Your task to perform on an android device: turn on the 24-hour format for clock Image 0: 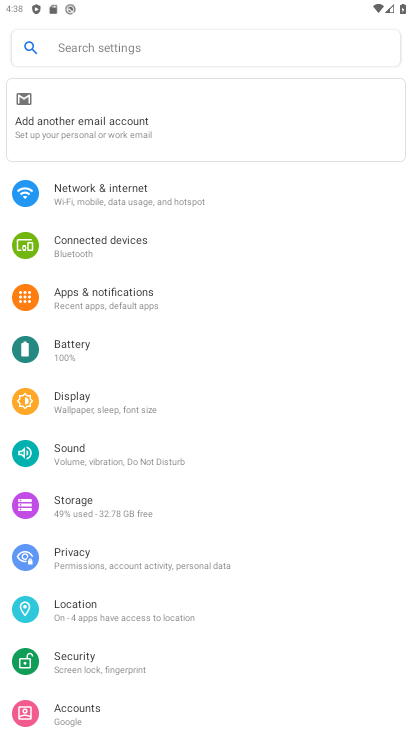
Step 0: press home button
Your task to perform on an android device: turn on the 24-hour format for clock Image 1: 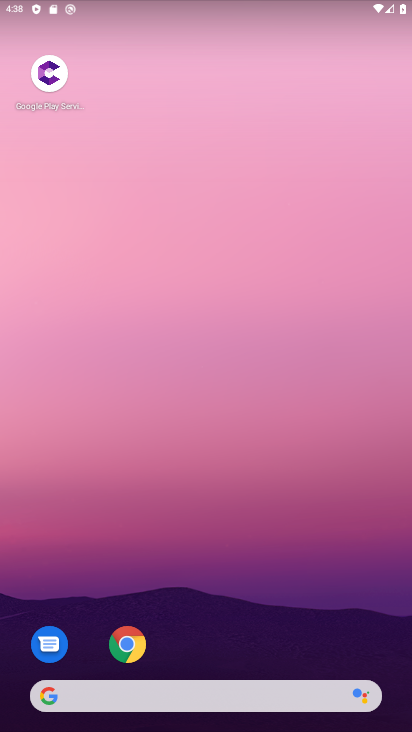
Step 1: drag from (203, 663) to (214, 282)
Your task to perform on an android device: turn on the 24-hour format for clock Image 2: 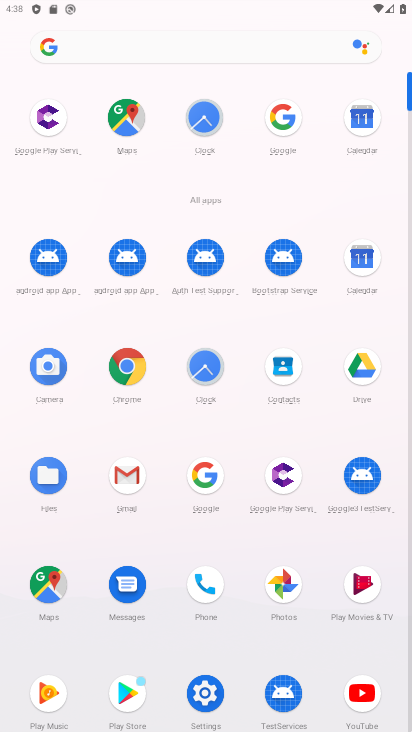
Step 2: click (210, 367)
Your task to perform on an android device: turn on the 24-hour format for clock Image 3: 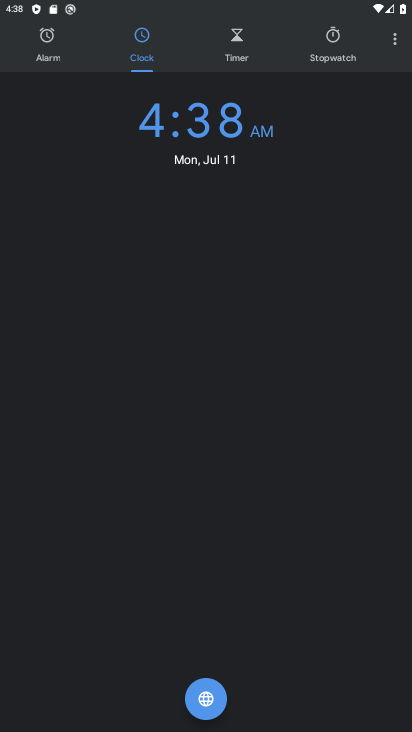
Step 3: click (392, 36)
Your task to perform on an android device: turn on the 24-hour format for clock Image 4: 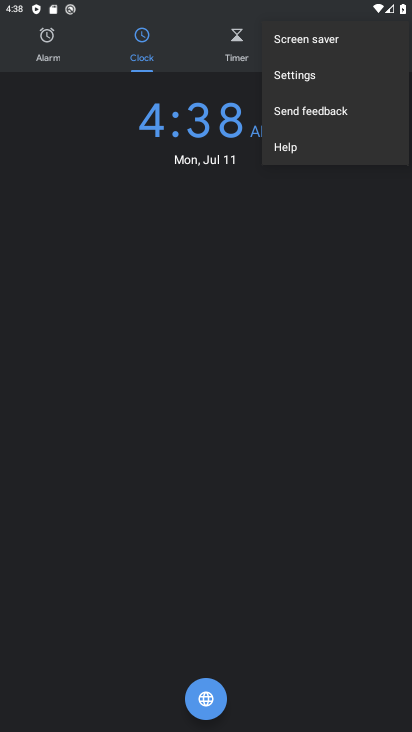
Step 4: click (304, 70)
Your task to perform on an android device: turn on the 24-hour format for clock Image 5: 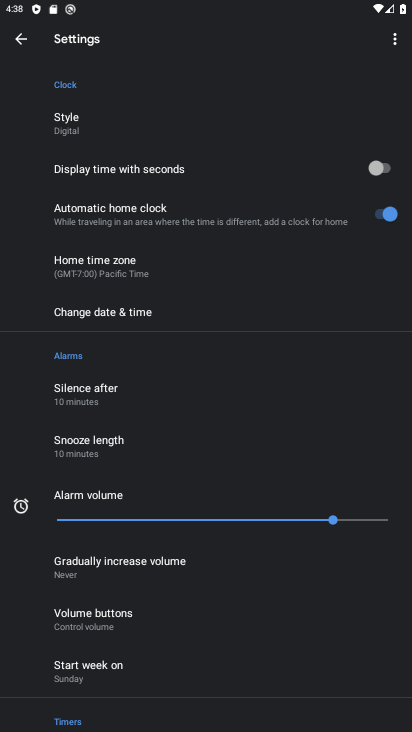
Step 5: click (88, 314)
Your task to perform on an android device: turn on the 24-hour format for clock Image 6: 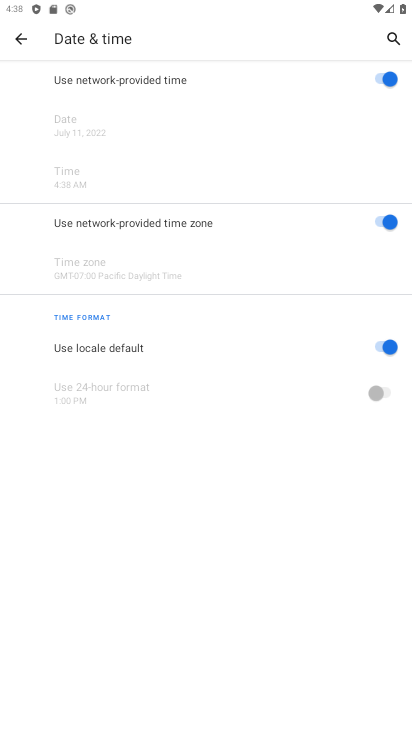
Step 6: click (378, 345)
Your task to perform on an android device: turn on the 24-hour format for clock Image 7: 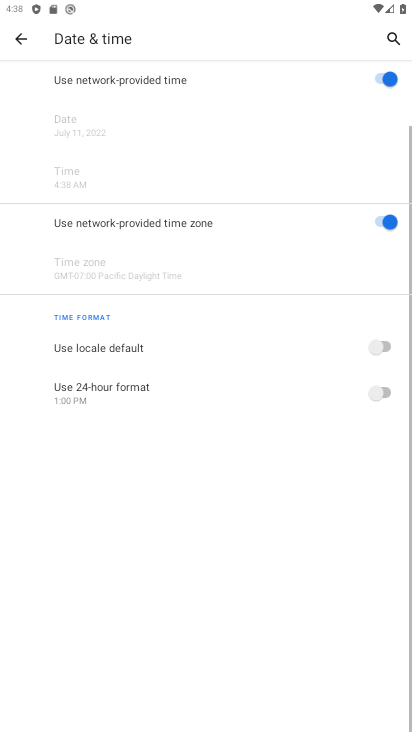
Step 7: click (389, 386)
Your task to perform on an android device: turn on the 24-hour format for clock Image 8: 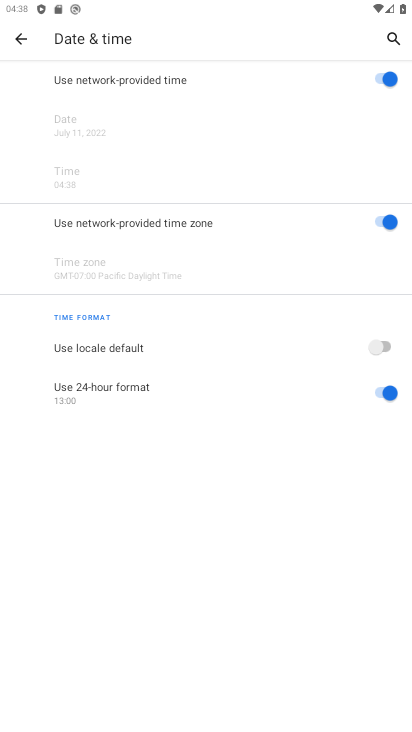
Step 8: task complete